Your task to perform on an android device: turn notification dots on Image 0: 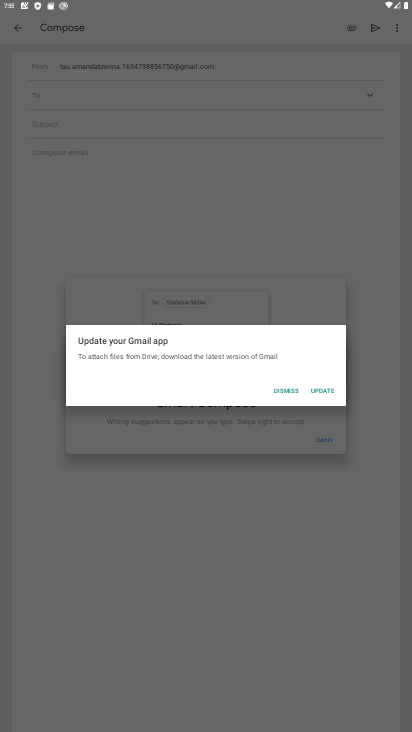
Step 0: press home button
Your task to perform on an android device: turn notification dots on Image 1: 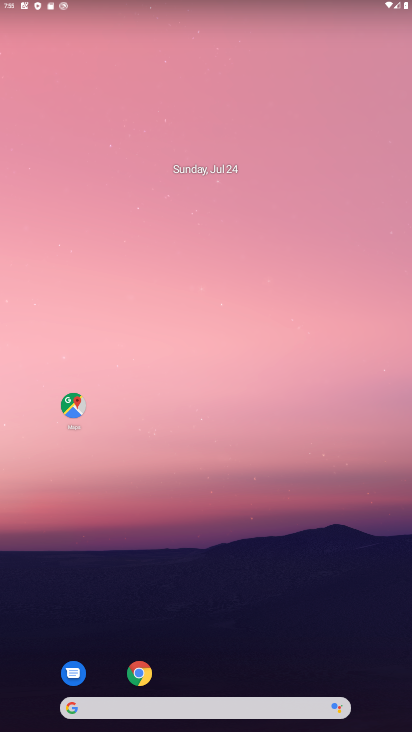
Step 1: drag from (199, 593) to (216, 72)
Your task to perform on an android device: turn notification dots on Image 2: 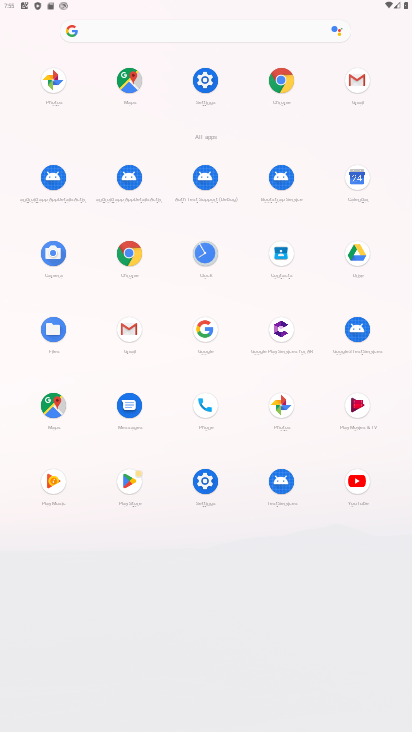
Step 2: click (207, 484)
Your task to perform on an android device: turn notification dots on Image 3: 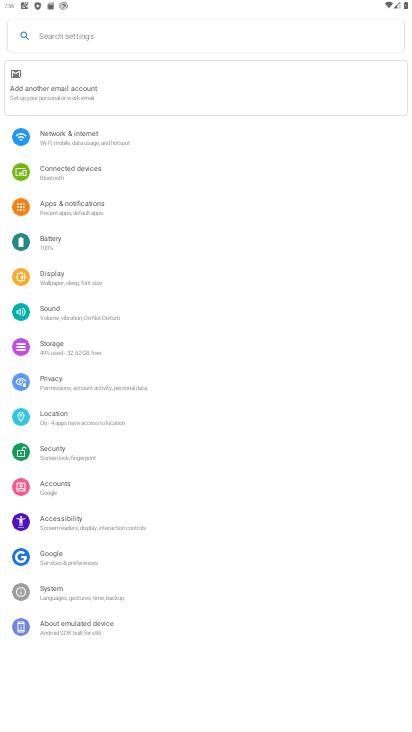
Step 3: click (86, 209)
Your task to perform on an android device: turn notification dots on Image 4: 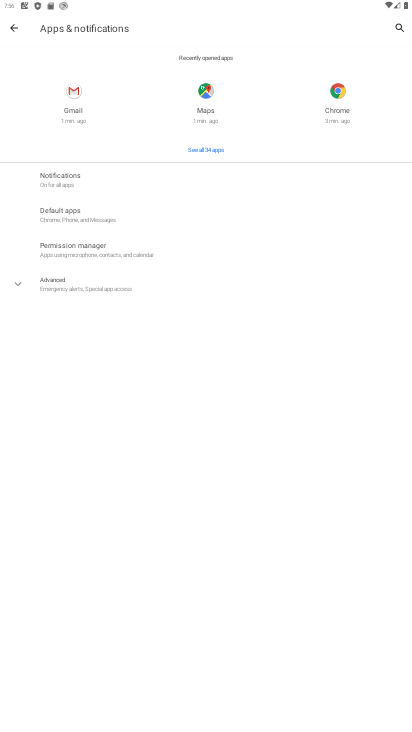
Step 4: click (61, 180)
Your task to perform on an android device: turn notification dots on Image 5: 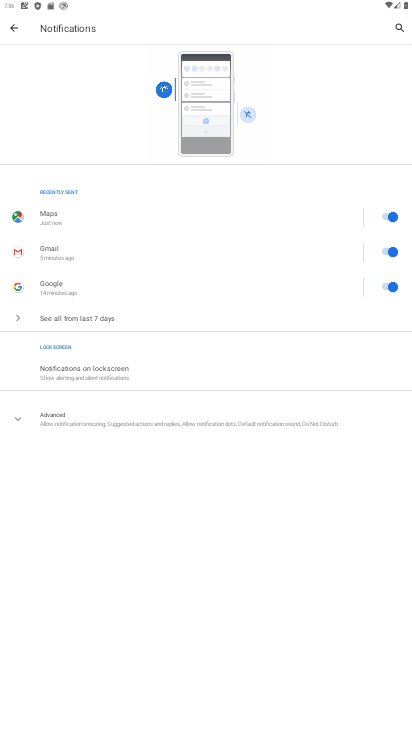
Step 5: click (46, 421)
Your task to perform on an android device: turn notification dots on Image 6: 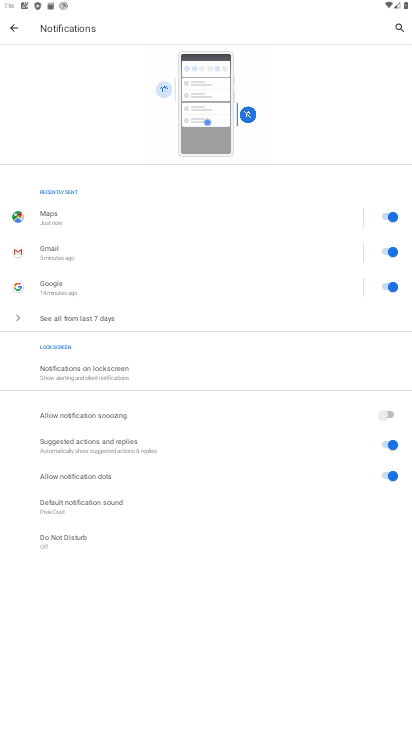
Step 6: task complete